Your task to perform on an android device: turn off sleep mode Image 0: 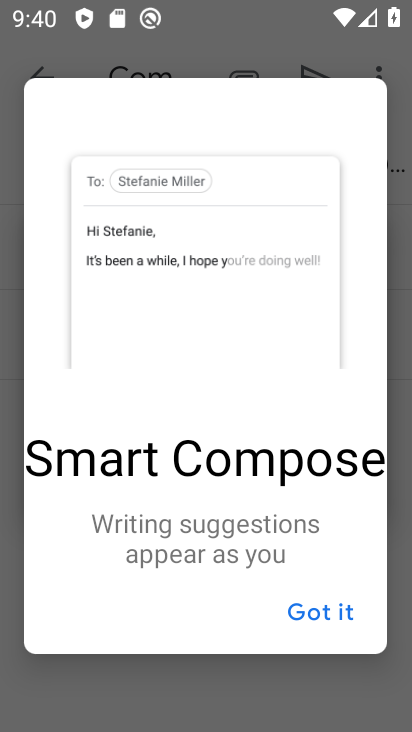
Step 0: press home button
Your task to perform on an android device: turn off sleep mode Image 1: 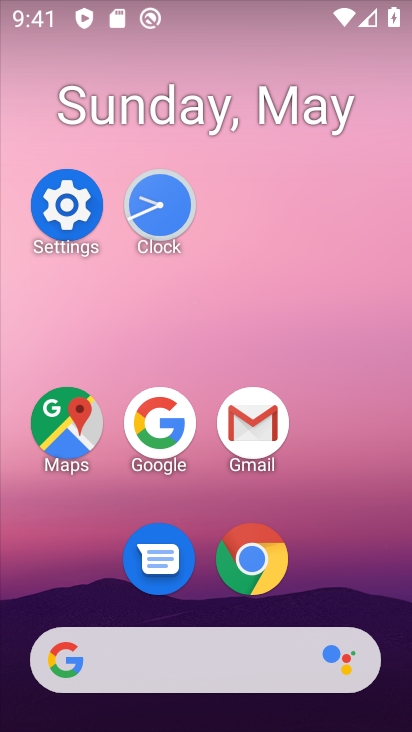
Step 1: click (41, 207)
Your task to perform on an android device: turn off sleep mode Image 2: 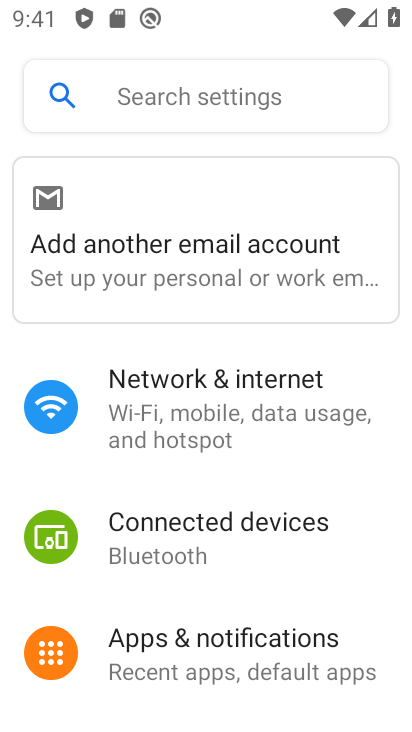
Step 2: drag from (257, 586) to (347, 226)
Your task to perform on an android device: turn off sleep mode Image 3: 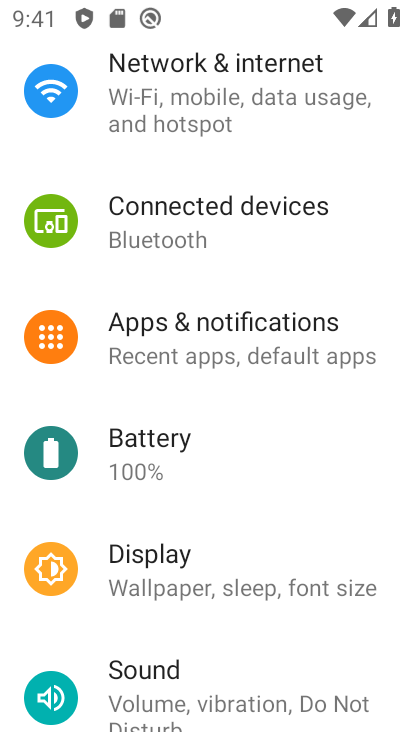
Step 3: click (278, 557)
Your task to perform on an android device: turn off sleep mode Image 4: 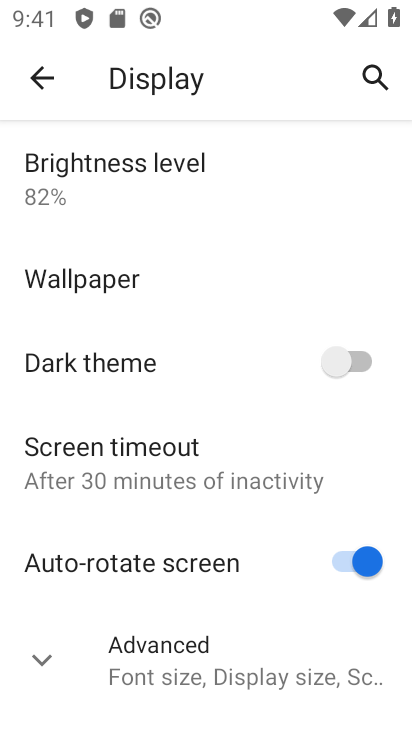
Step 4: click (238, 440)
Your task to perform on an android device: turn off sleep mode Image 5: 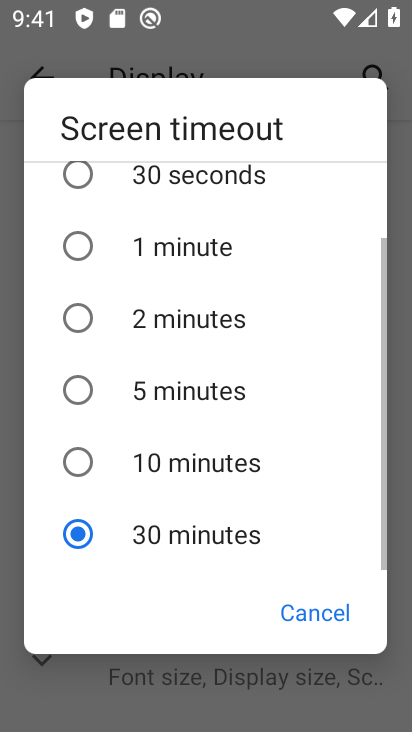
Step 5: task complete